Your task to perform on an android device: snooze an email in the gmail app Image 0: 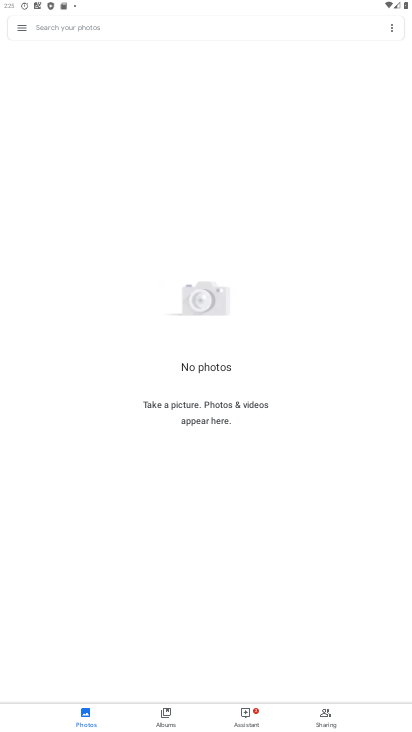
Step 0: press home button
Your task to perform on an android device: snooze an email in the gmail app Image 1: 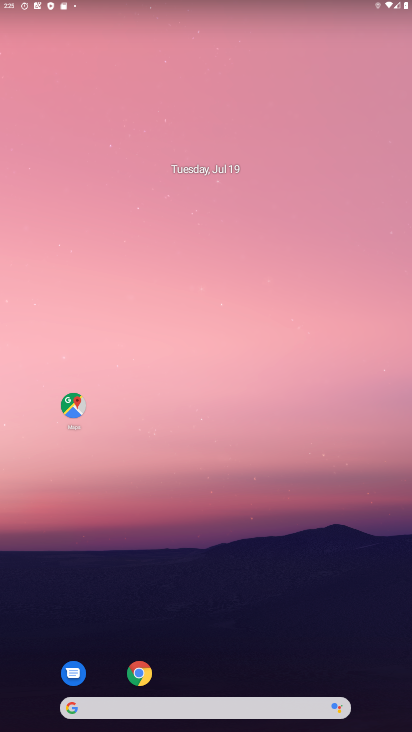
Step 1: drag from (221, 666) to (257, 63)
Your task to perform on an android device: snooze an email in the gmail app Image 2: 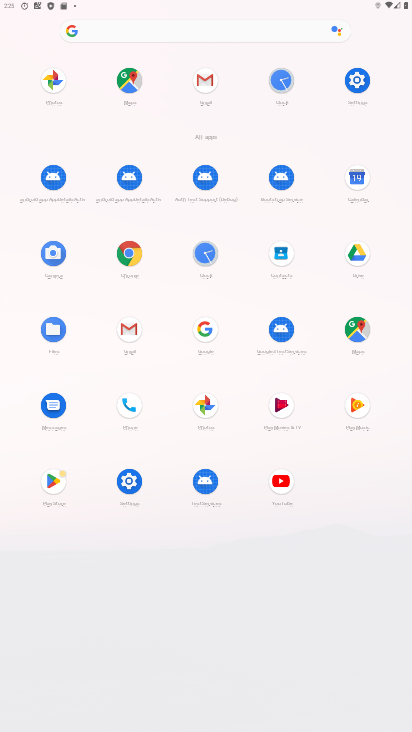
Step 2: click (121, 337)
Your task to perform on an android device: snooze an email in the gmail app Image 3: 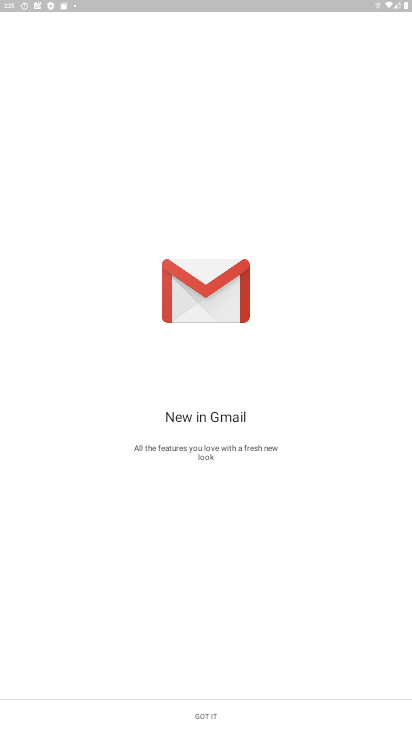
Step 3: click (224, 729)
Your task to perform on an android device: snooze an email in the gmail app Image 4: 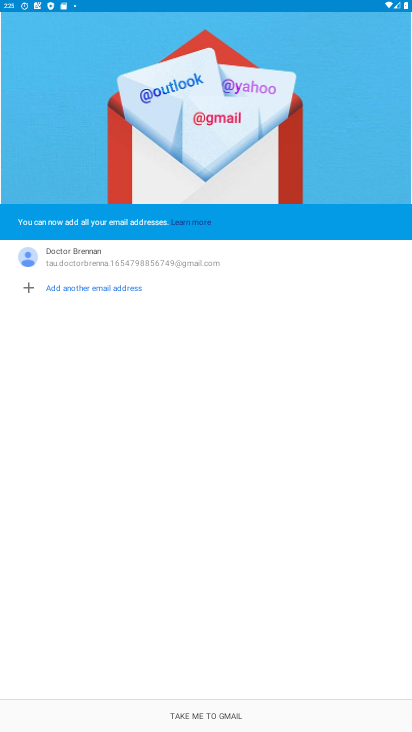
Step 4: click (239, 716)
Your task to perform on an android device: snooze an email in the gmail app Image 5: 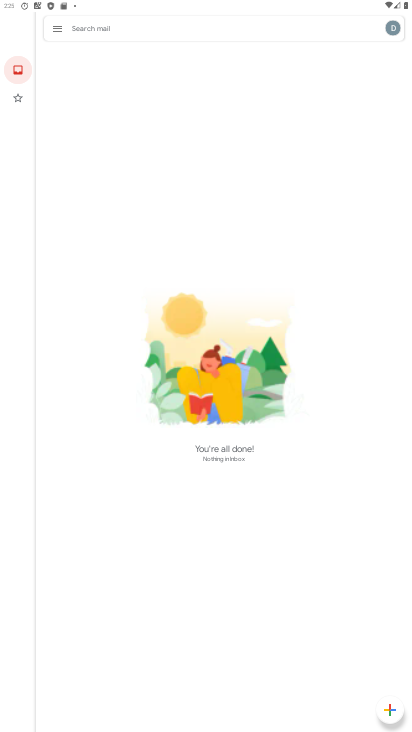
Step 5: task complete